Your task to perform on an android device: Go to calendar. Show me events next week Image 0: 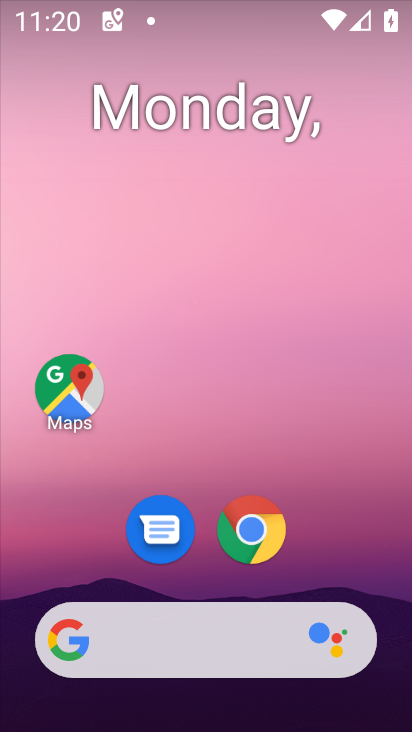
Step 0: press home button
Your task to perform on an android device: Go to calendar. Show me events next week Image 1: 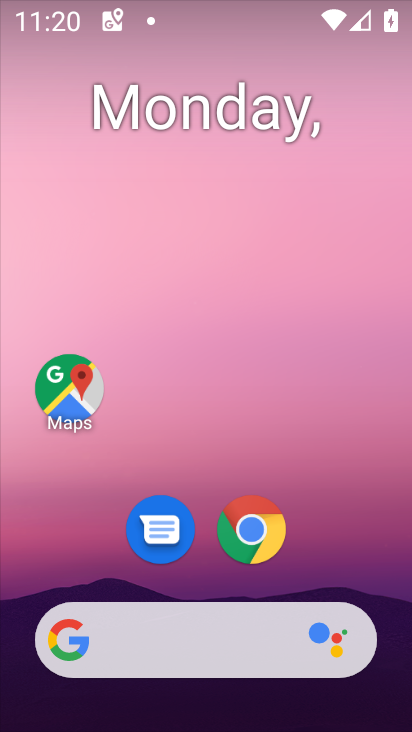
Step 1: drag from (270, 686) to (312, 47)
Your task to perform on an android device: Go to calendar. Show me events next week Image 2: 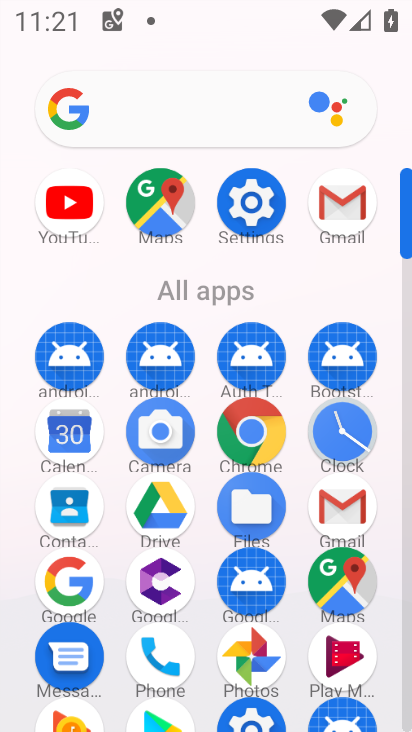
Step 2: click (83, 425)
Your task to perform on an android device: Go to calendar. Show me events next week Image 3: 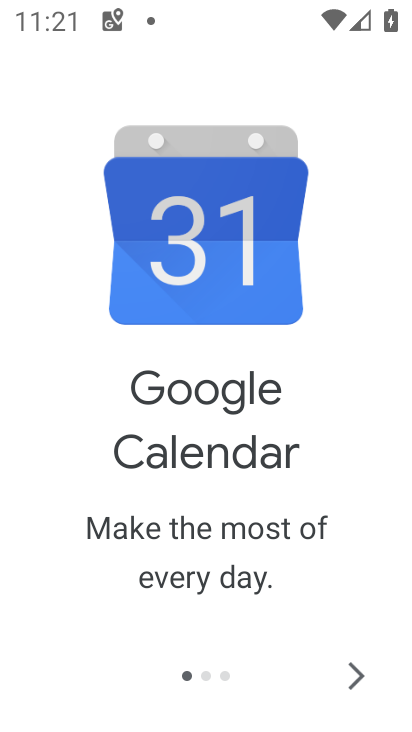
Step 3: click (340, 682)
Your task to perform on an android device: Go to calendar. Show me events next week Image 4: 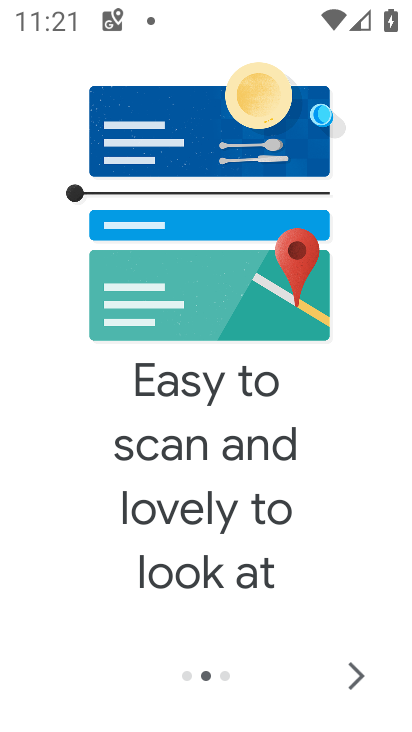
Step 4: click (360, 675)
Your task to perform on an android device: Go to calendar. Show me events next week Image 5: 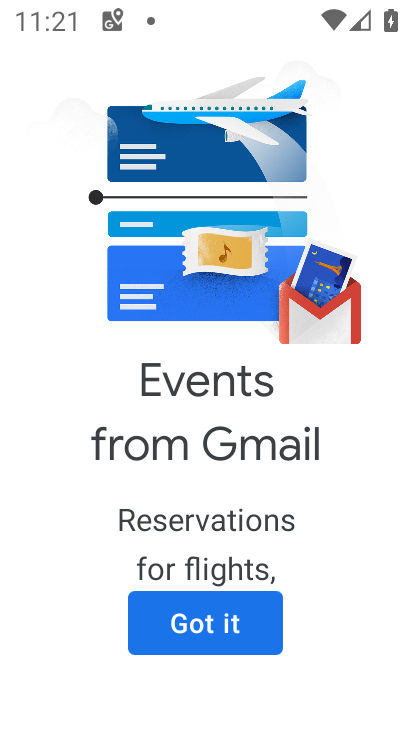
Step 5: click (197, 629)
Your task to perform on an android device: Go to calendar. Show me events next week Image 6: 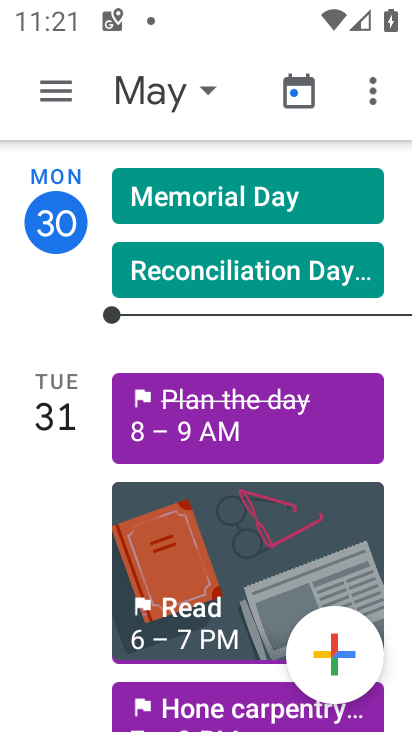
Step 6: click (45, 84)
Your task to perform on an android device: Go to calendar. Show me events next week Image 7: 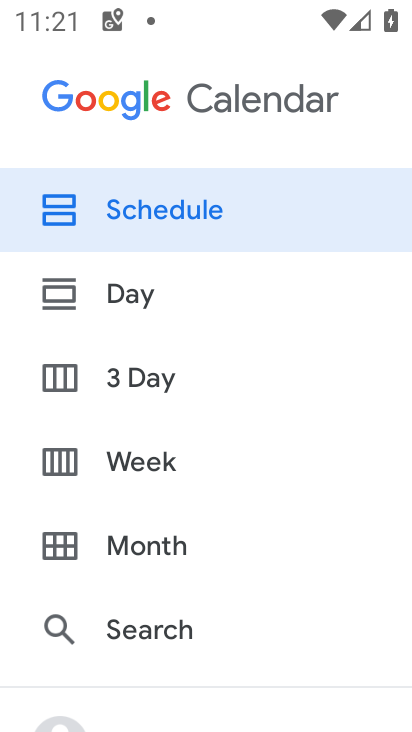
Step 7: click (142, 543)
Your task to perform on an android device: Go to calendar. Show me events next week Image 8: 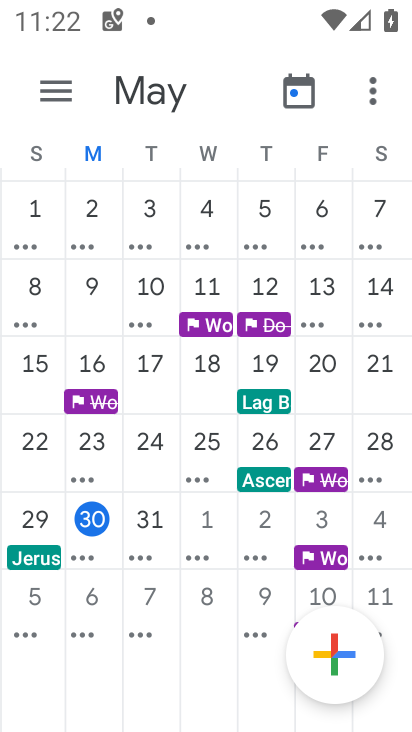
Step 8: click (101, 594)
Your task to perform on an android device: Go to calendar. Show me events next week Image 9: 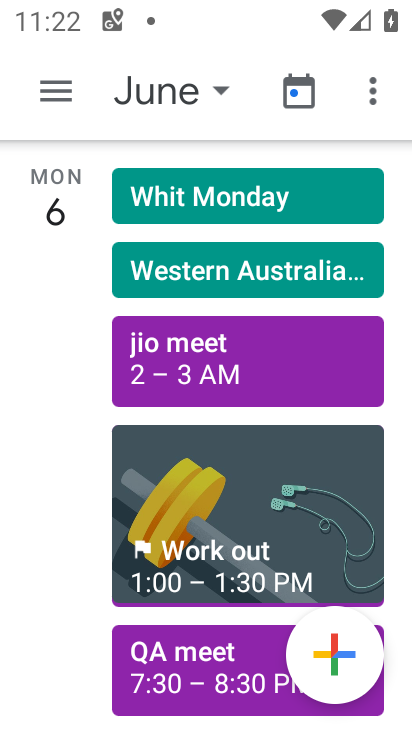
Step 9: task complete